Your task to perform on an android device: change your default location settings in chrome Image 0: 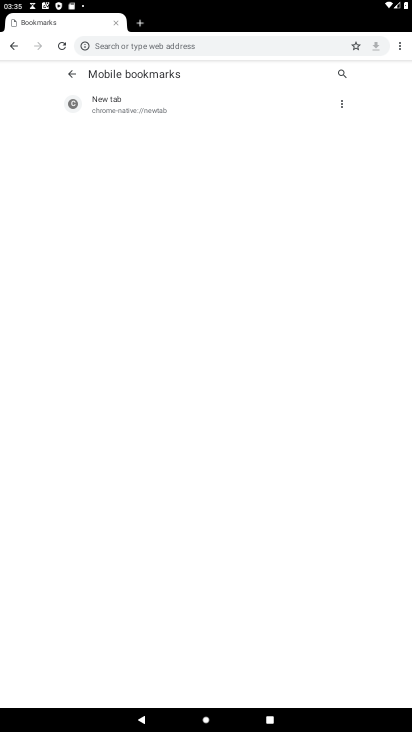
Step 0: click (405, 49)
Your task to perform on an android device: change your default location settings in chrome Image 1: 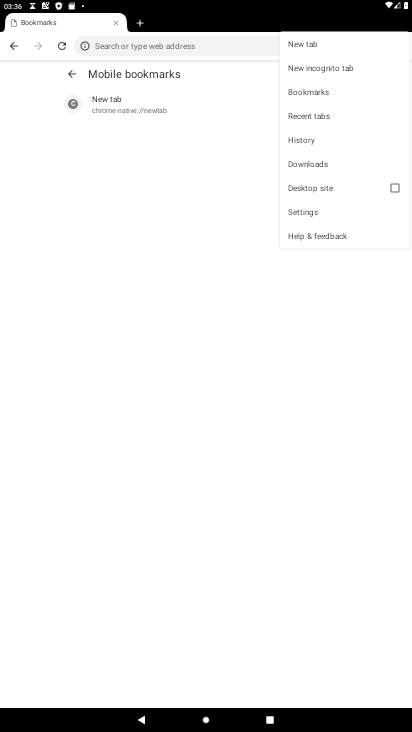
Step 1: click (305, 206)
Your task to perform on an android device: change your default location settings in chrome Image 2: 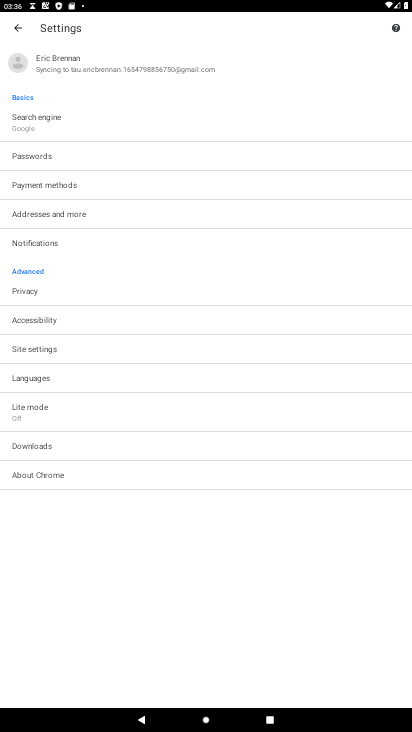
Step 2: click (41, 345)
Your task to perform on an android device: change your default location settings in chrome Image 3: 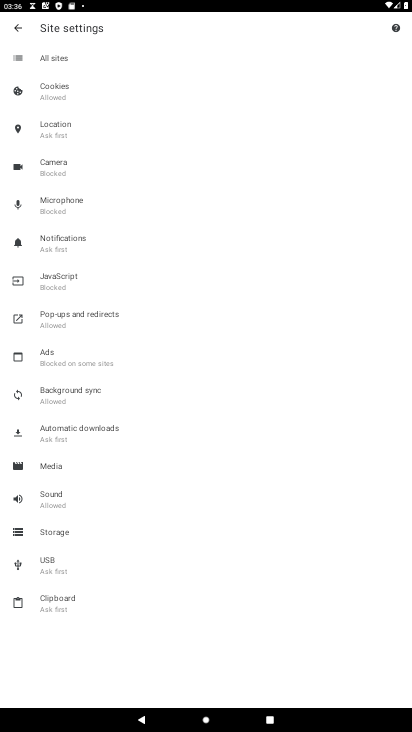
Step 3: click (95, 131)
Your task to perform on an android device: change your default location settings in chrome Image 4: 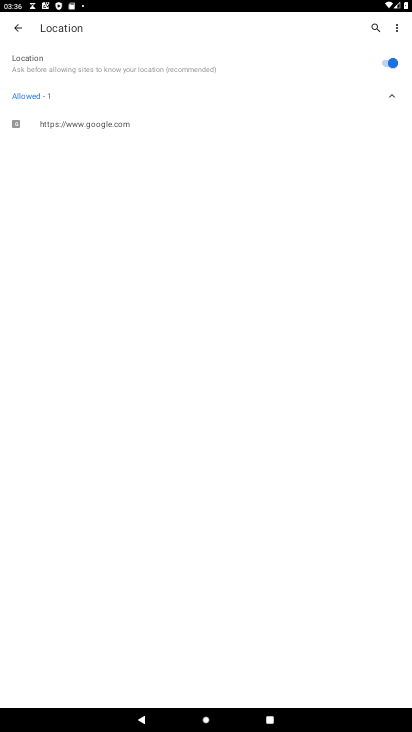
Step 4: click (374, 55)
Your task to perform on an android device: change your default location settings in chrome Image 5: 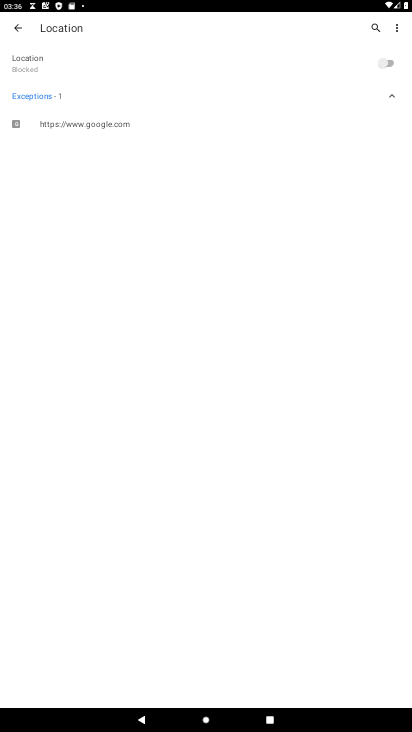
Step 5: task complete